Your task to perform on an android device: open sync settings in chrome Image 0: 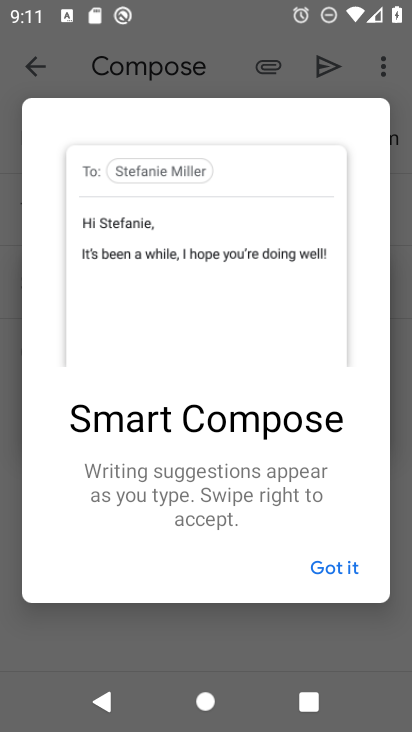
Step 0: press home button
Your task to perform on an android device: open sync settings in chrome Image 1: 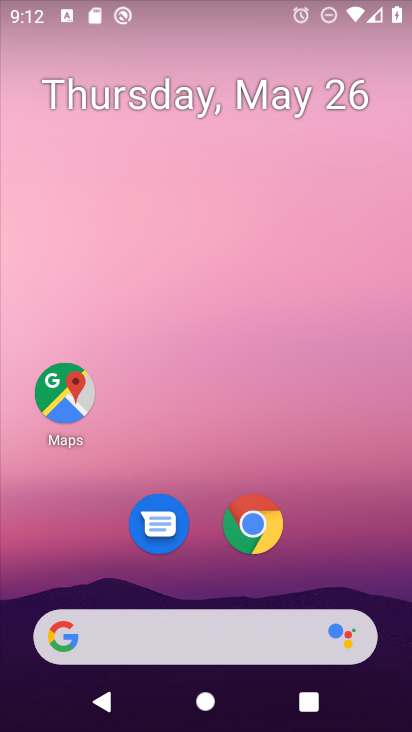
Step 1: click (266, 553)
Your task to perform on an android device: open sync settings in chrome Image 2: 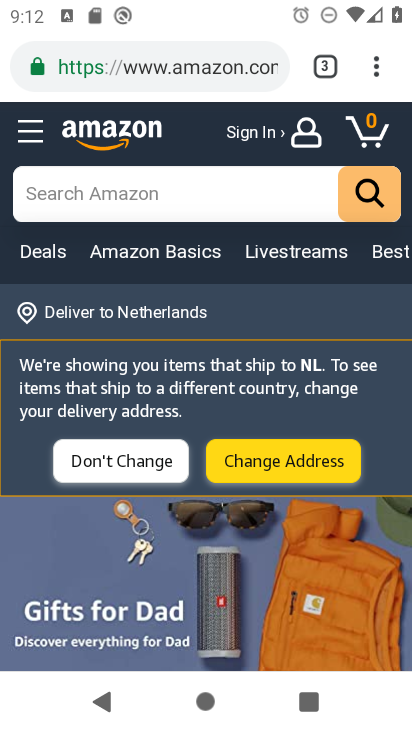
Step 2: click (372, 67)
Your task to perform on an android device: open sync settings in chrome Image 3: 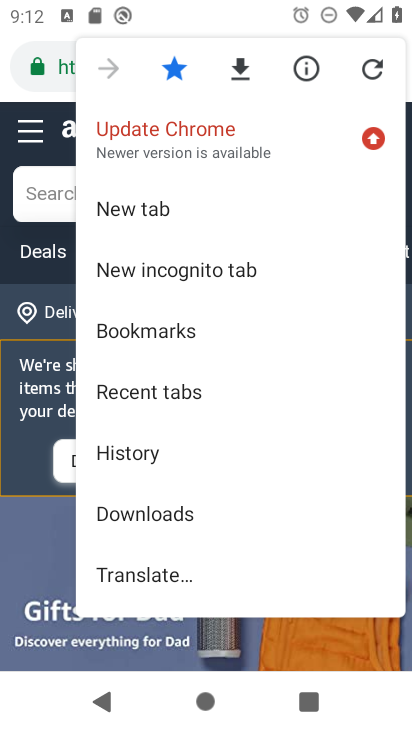
Step 3: drag from (223, 494) to (208, 156)
Your task to perform on an android device: open sync settings in chrome Image 4: 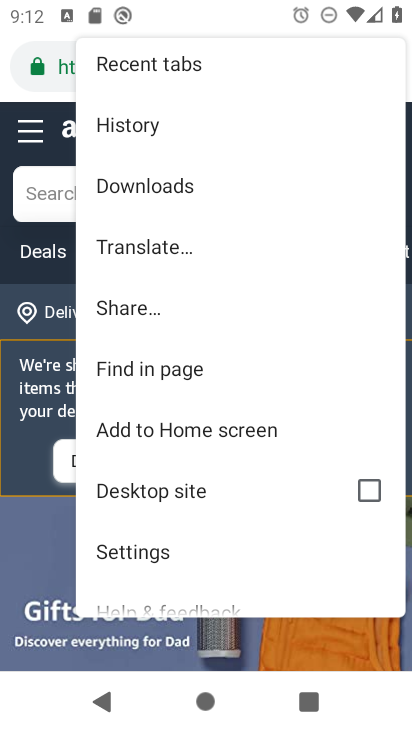
Step 4: click (180, 537)
Your task to perform on an android device: open sync settings in chrome Image 5: 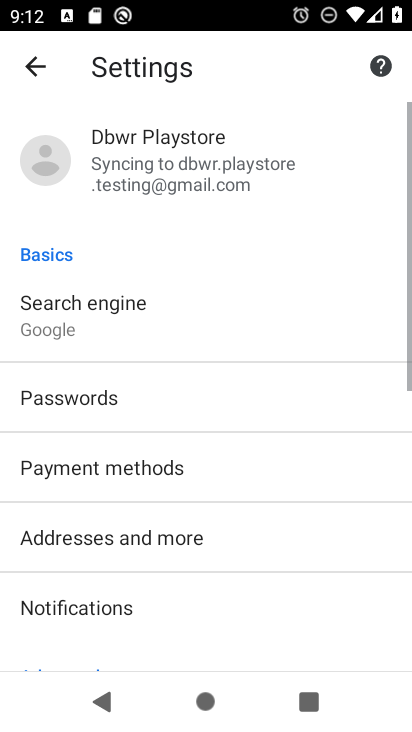
Step 5: click (189, 155)
Your task to perform on an android device: open sync settings in chrome Image 6: 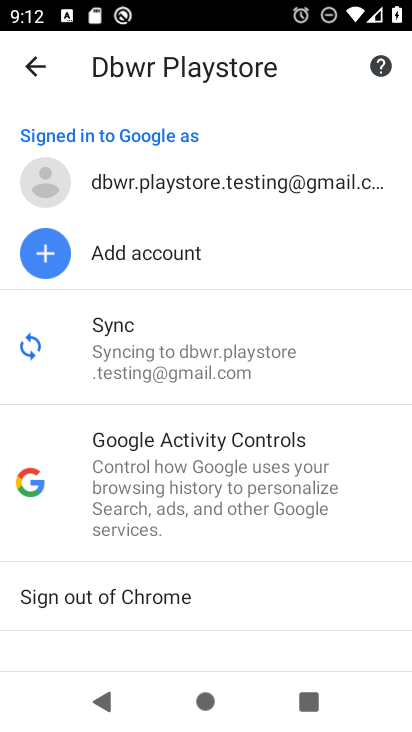
Step 6: click (164, 348)
Your task to perform on an android device: open sync settings in chrome Image 7: 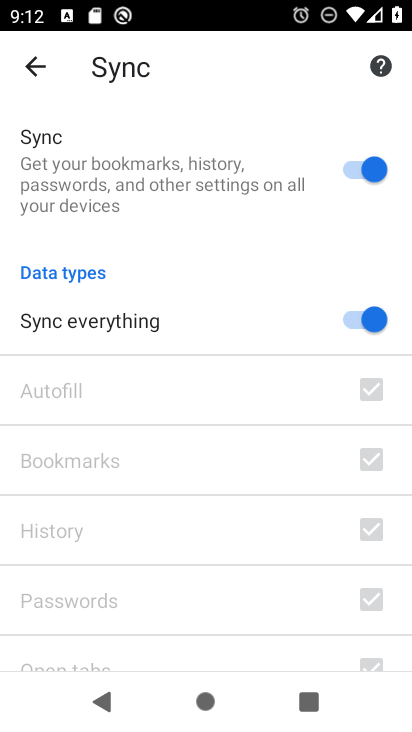
Step 7: task complete